Your task to perform on an android device: Open privacy settings Image 0: 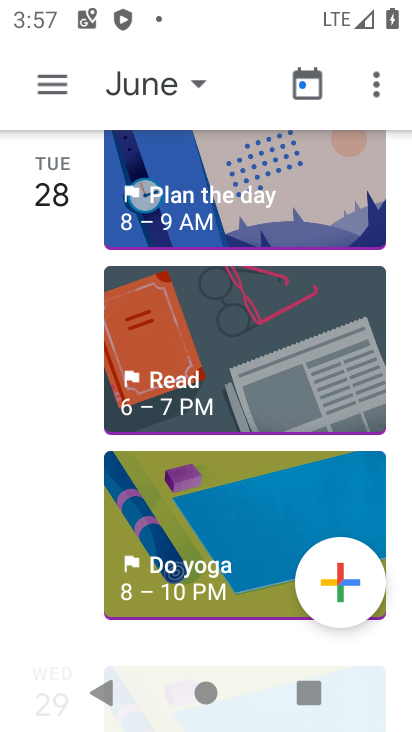
Step 0: press home button
Your task to perform on an android device: Open privacy settings Image 1: 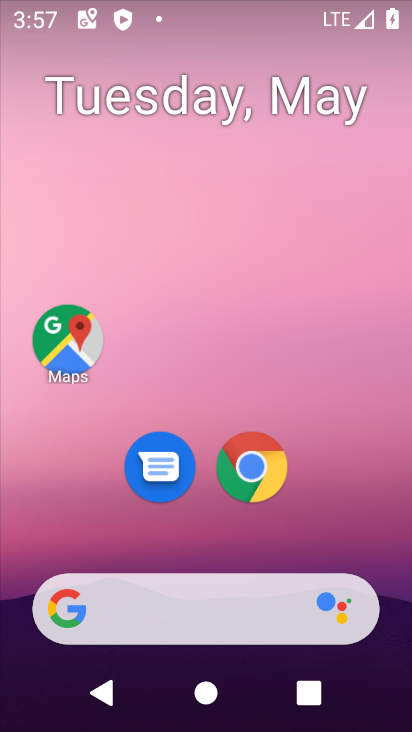
Step 1: drag from (310, 526) to (251, 113)
Your task to perform on an android device: Open privacy settings Image 2: 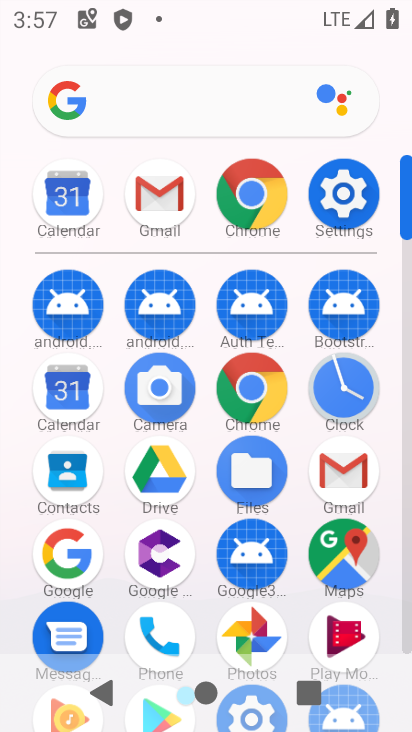
Step 2: click (359, 200)
Your task to perform on an android device: Open privacy settings Image 3: 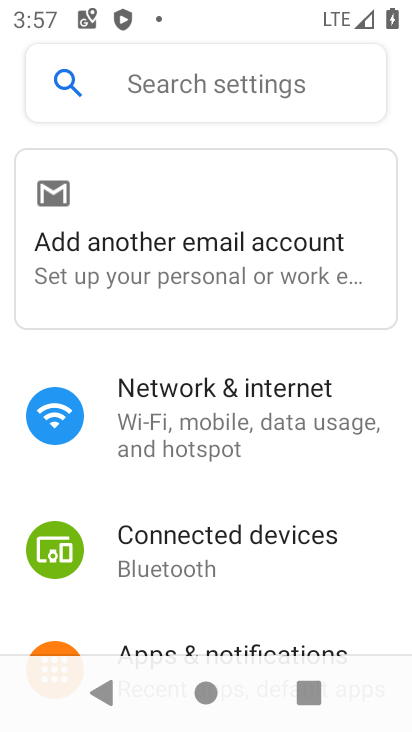
Step 3: drag from (365, 608) to (291, 69)
Your task to perform on an android device: Open privacy settings Image 4: 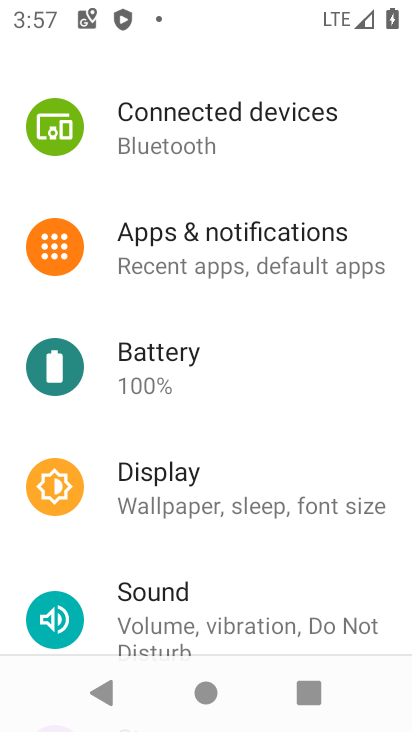
Step 4: drag from (391, 645) to (344, 221)
Your task to perform on an android device: Open privacy settings Image 5: 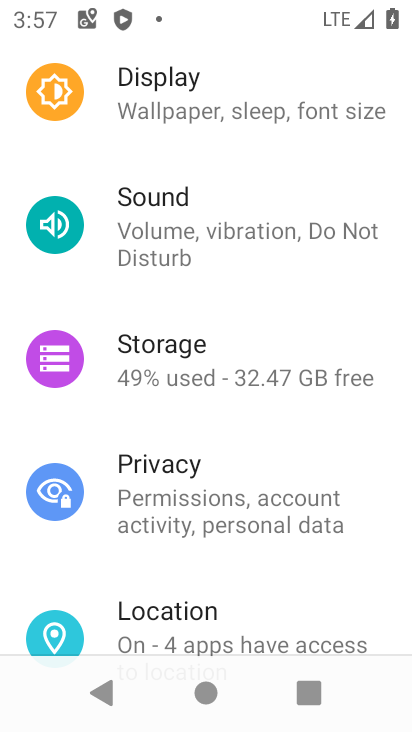
Step 5: click (166, 472)
Your task to perform on an android device: Open privacy settings Image 6: 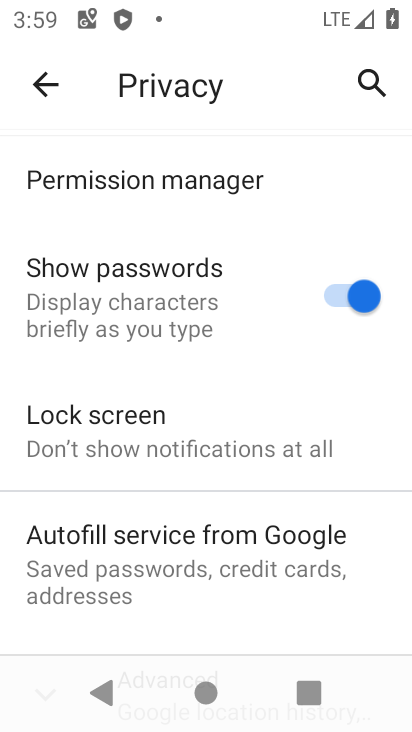
Step 6: task complete